Your task to perform on an android device: check the backup settings in the google photos Image 0: 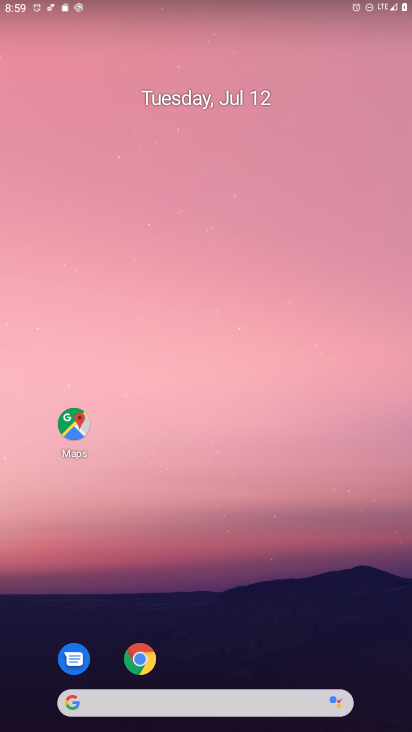
Step 0: drag from (218, 698) to (220, 124)
Your task to perform on an android device: check the backup settings in the google photos Image 1: 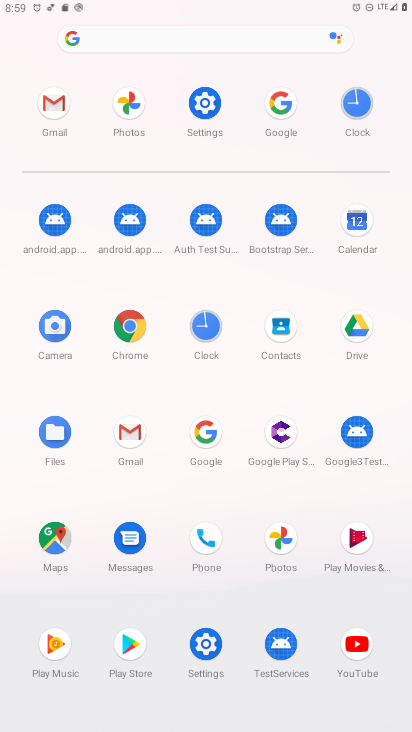
Step 1: click (130, 100)
Your task to perform on an android device: check the backup settings in the google photos Image 2: 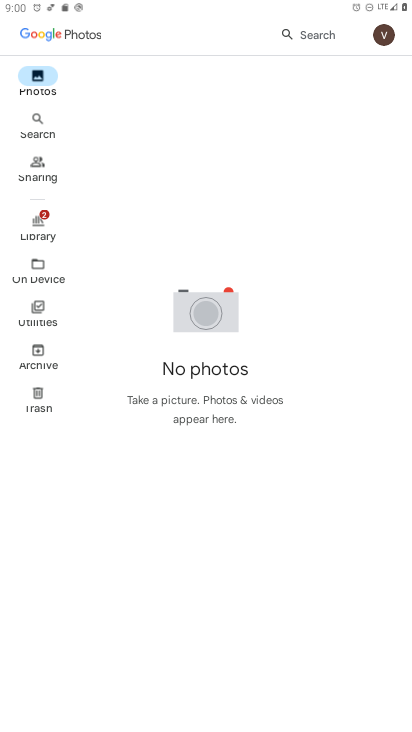
Step 2: click (386, 36)
Your task to perform on an android device: check the backup settings in the google photos Image 3: 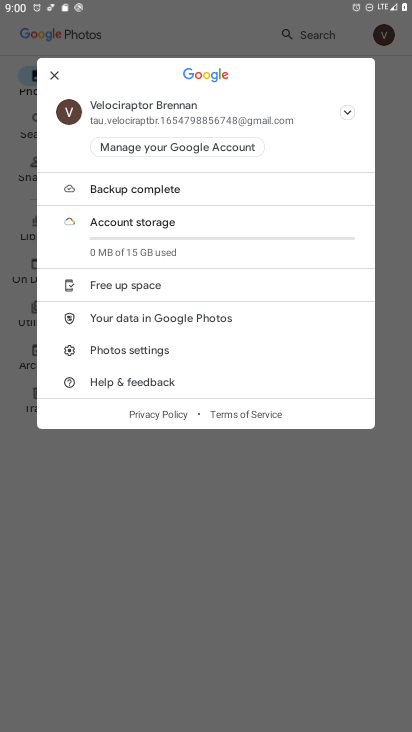
Step 3: click (128, 352)
Your task to perform on an android device: check the backup settings in the google photos Image 4: 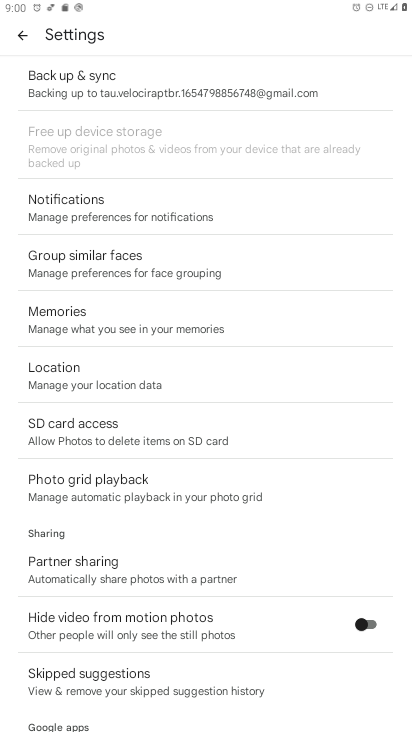
Step 4: click (159, 90)
Your task to perform on an android device: check the backup settings in the google photos Image 5: 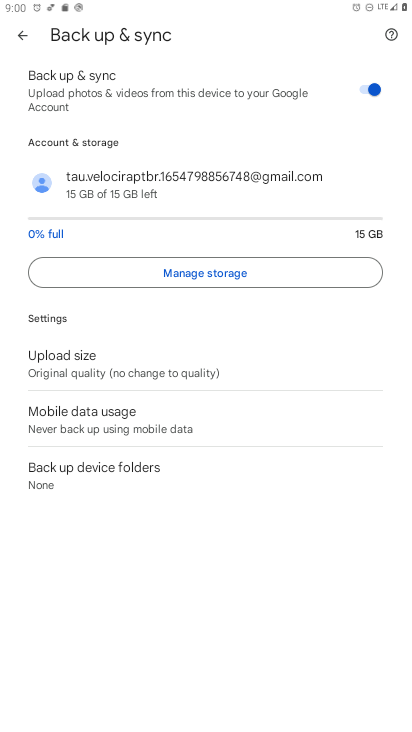
Step 5: task complete